Your task to perform on an android device: turn on priority inbox in the gmail app Image 0: 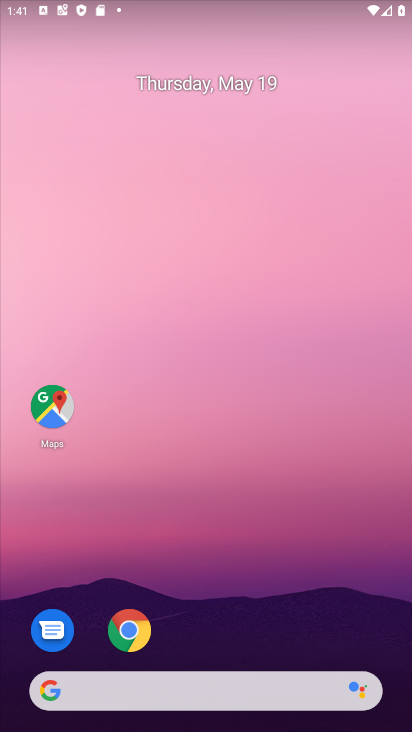
Step 0: drag from (398, 650) to (290, 116)
Your task to perform on an android device: turn on priority inbox in the gmail app Image 1: 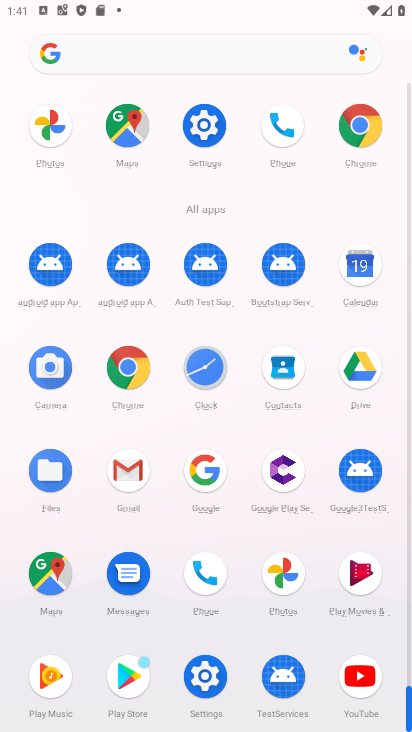
Step 1: click (127, 468)
Your task to perform on an android device: turn on priority inbox in the gmail app Image 2: 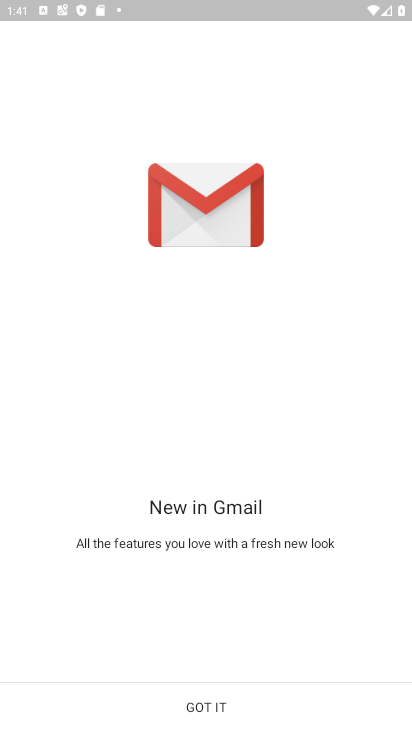
Step 2: click (206, 707)
Your task to perform on an android device: turn on priority inbox in the gmail app Image 3: 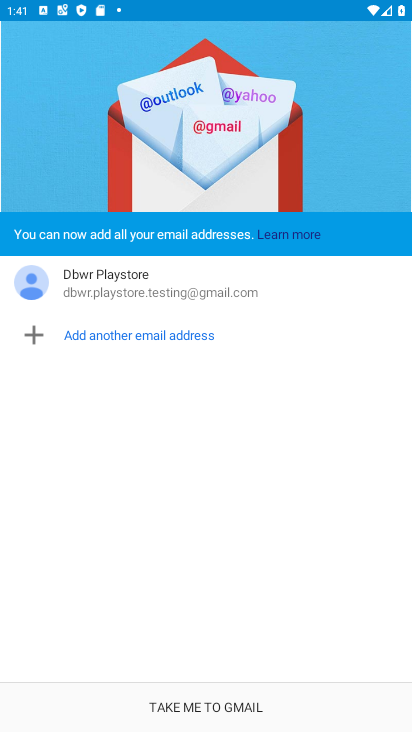
Step 3: click (206, 707)
Your task to perform on an android device: turn on priority inbox in the gmail app Image 4: 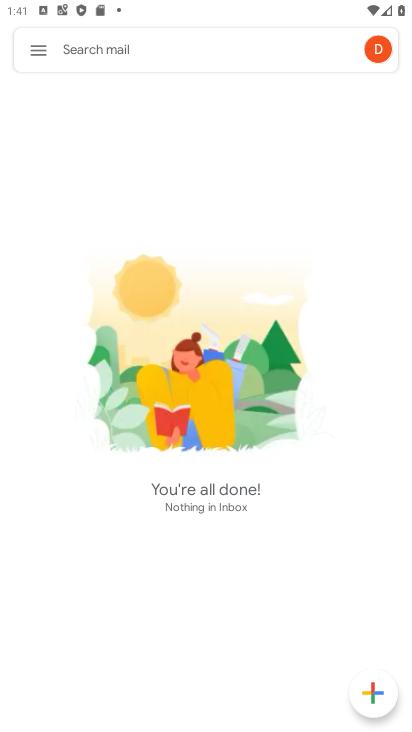
Step 4: click (39, 44)
Your task to perform on an android device: turn on priority inbox in the gmail app Image 5: 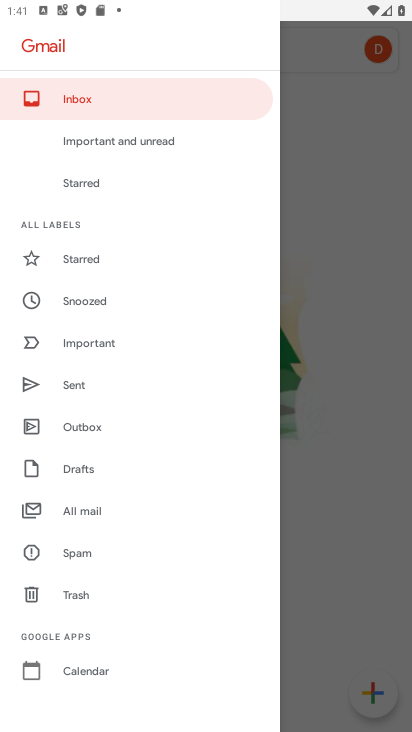
Step 5: drag from (160, 621) to (171, 298)
Your task to perform on an android device: turn on priority inbox in the gmail app Image 6: 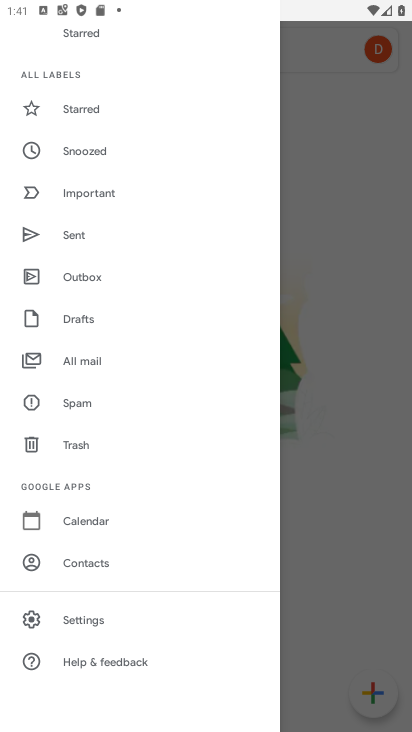
Step 6: click (78, 616)
Your task to perform on an android device: turn on priority inbox in the gmail app Image 7: 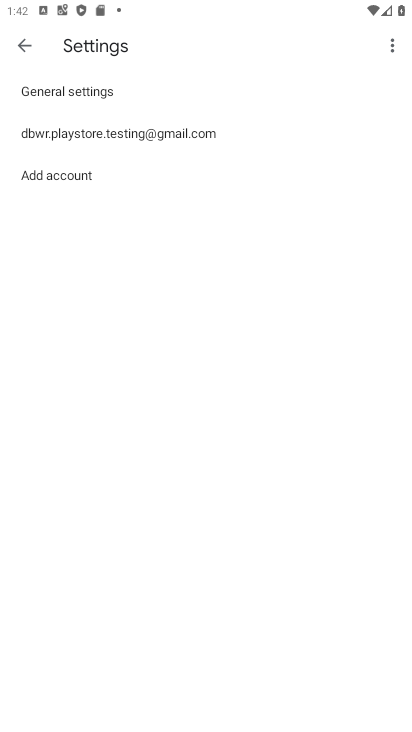
Step 7: click (132, 133)
Your task to perform on an android device: turn on priority inbox in the gmail app Image 8: 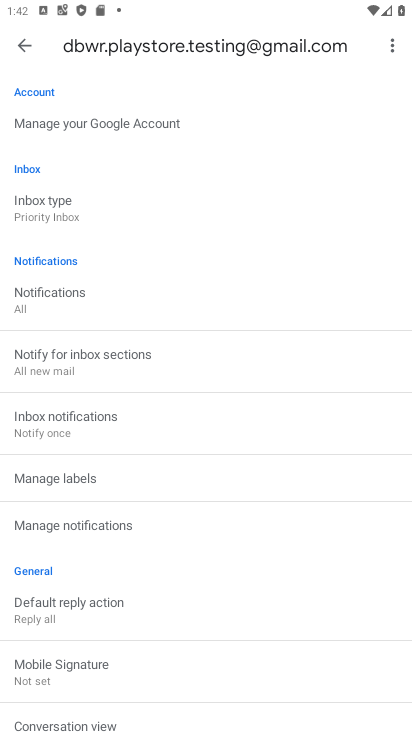
Step 8: click (32, 198)
Your task to perform on an android device: turn on priority inbox in the gmail app Image 9: 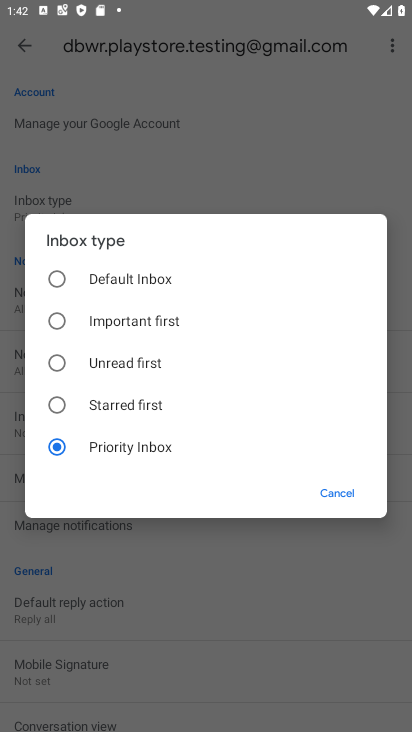
Step 9: task complete